Your task to perform on an android device: delete a single message in the gmail app Image 0: 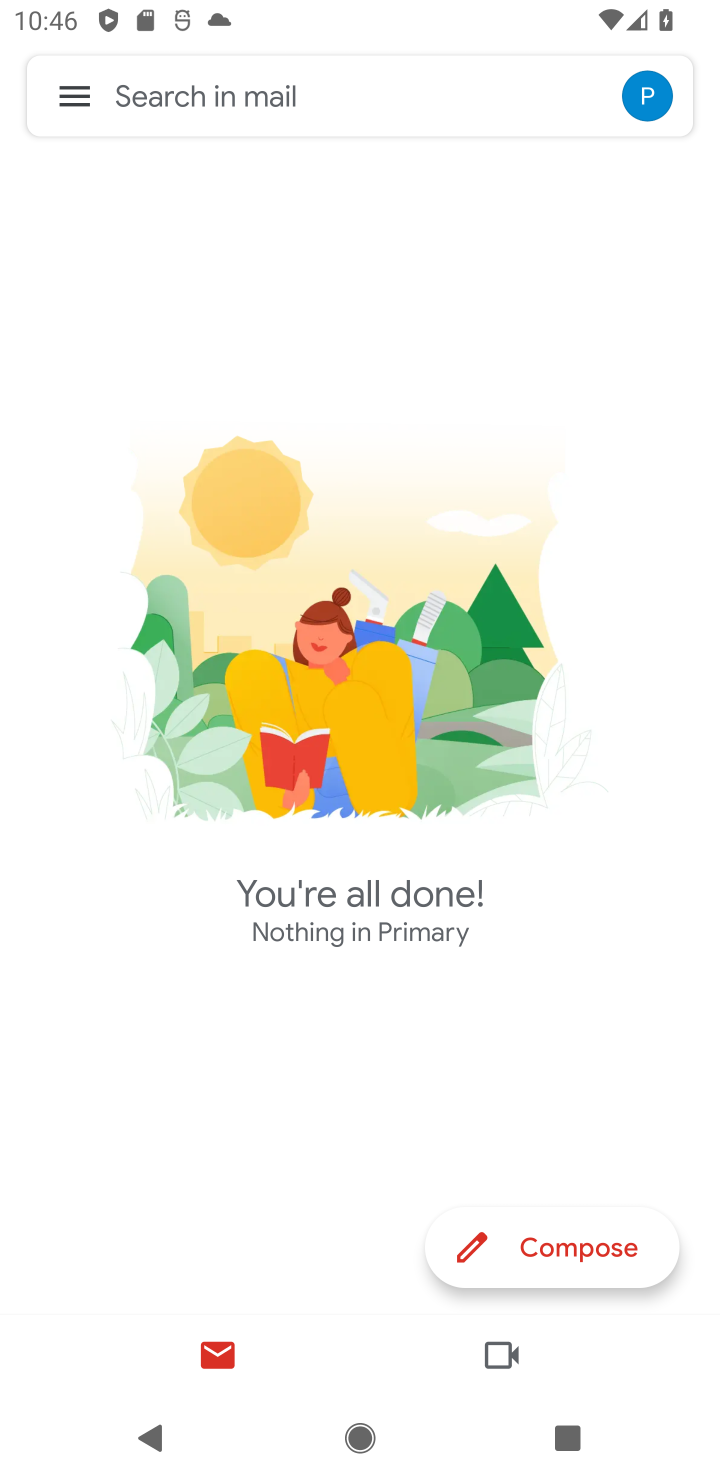
Step 0: press home button
Your task to perform on an android device: delete a single message in the gmail app Image 1: 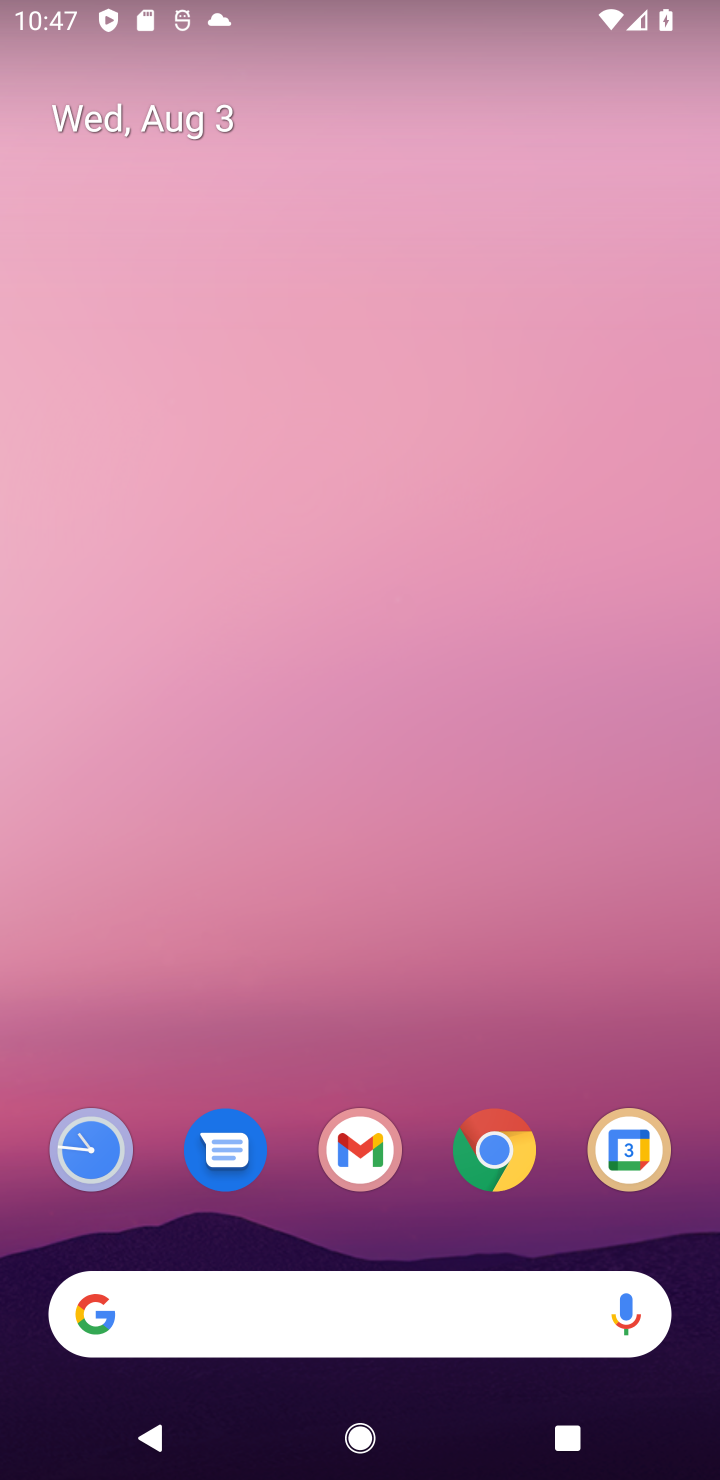
Step 1: drag from (511, 998) to (561, 361)
Your task to perform on an android device: delete a single message in the gmail app Image 2: 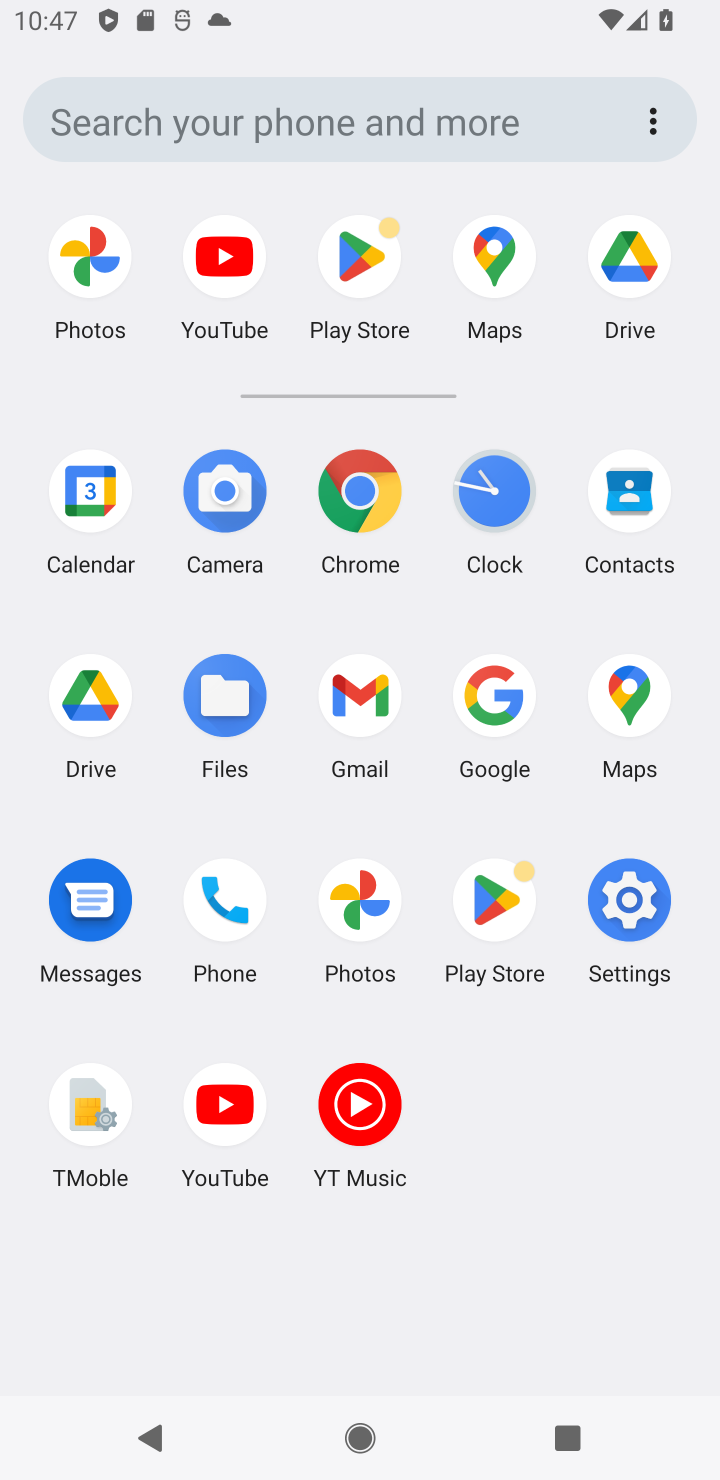
Step 2: click (379, 707)
Your task to perform on an android device: delete a single message in the gmail app Image 3: 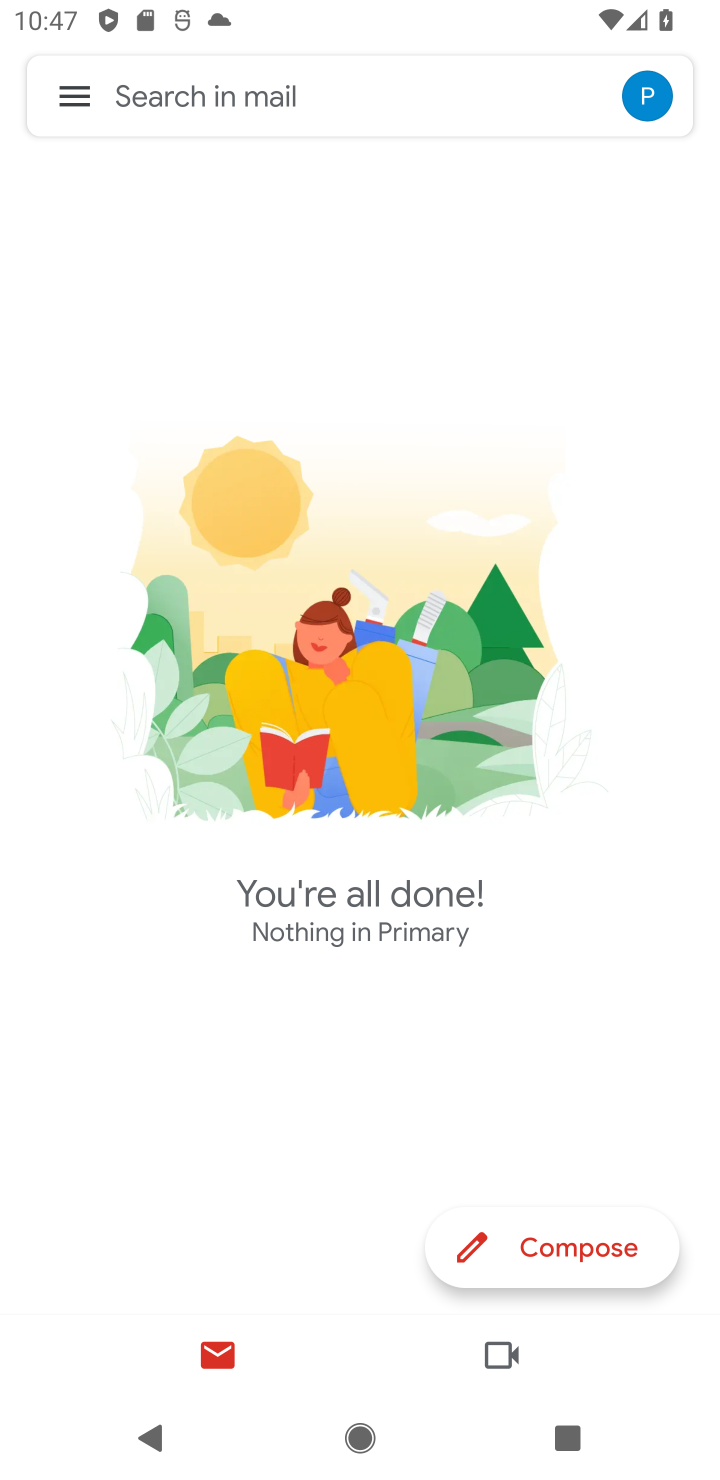
Step 3: click (78, 85)
Your task to perform on an android device: delete a single message in the gmail app Image 4: 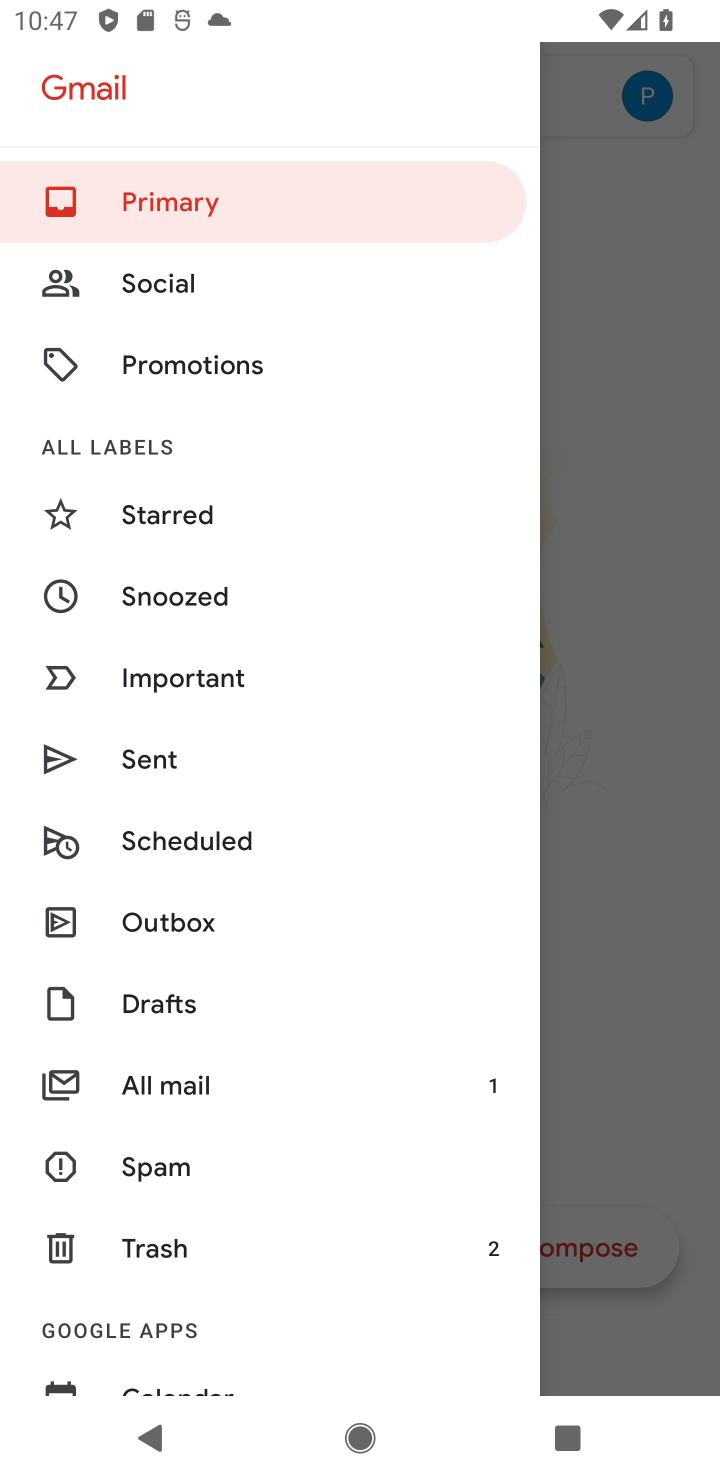
Step 4: click (275, 1086)
Your task to perform on an android device: delete a single message in the gmail app Image 5: 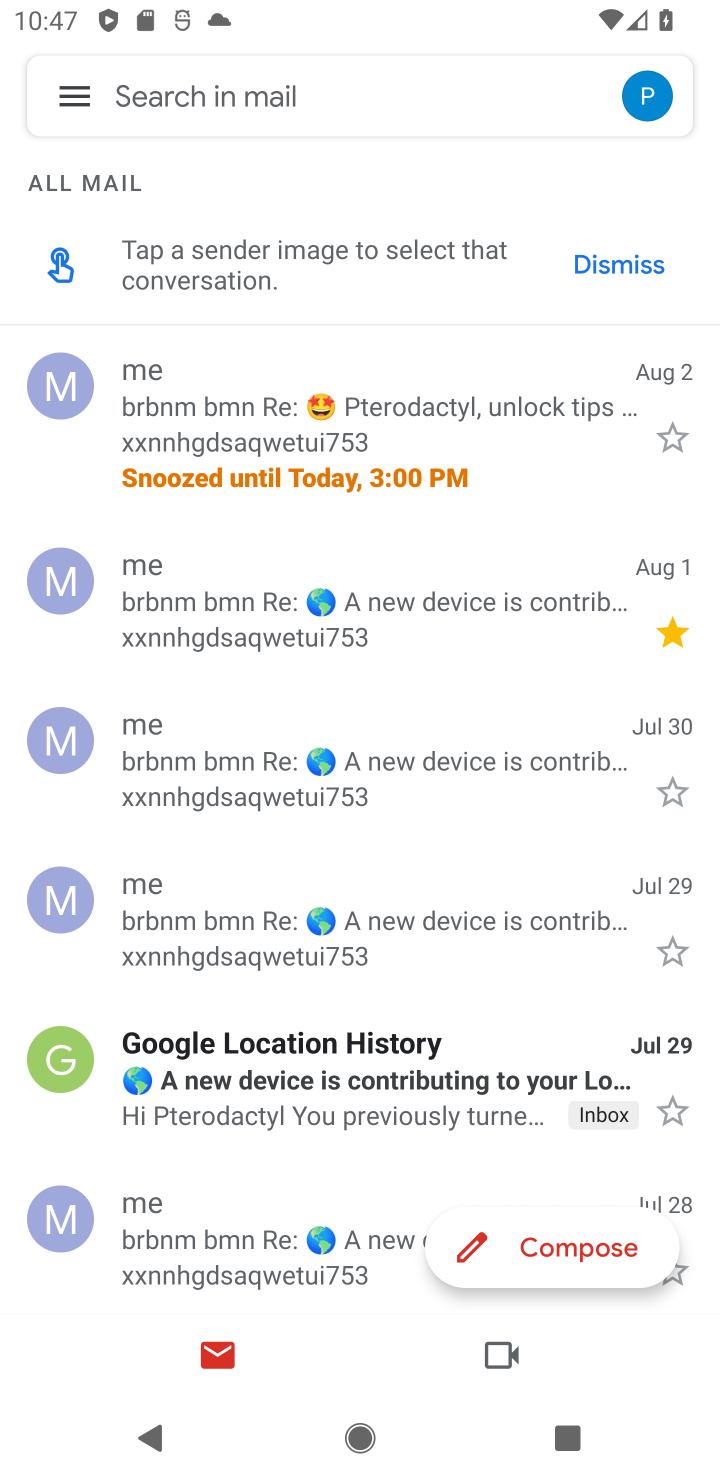
Step 5: click (454, 436)
Your task to perform on an android device: delete a single message in the gmail app Image 6: 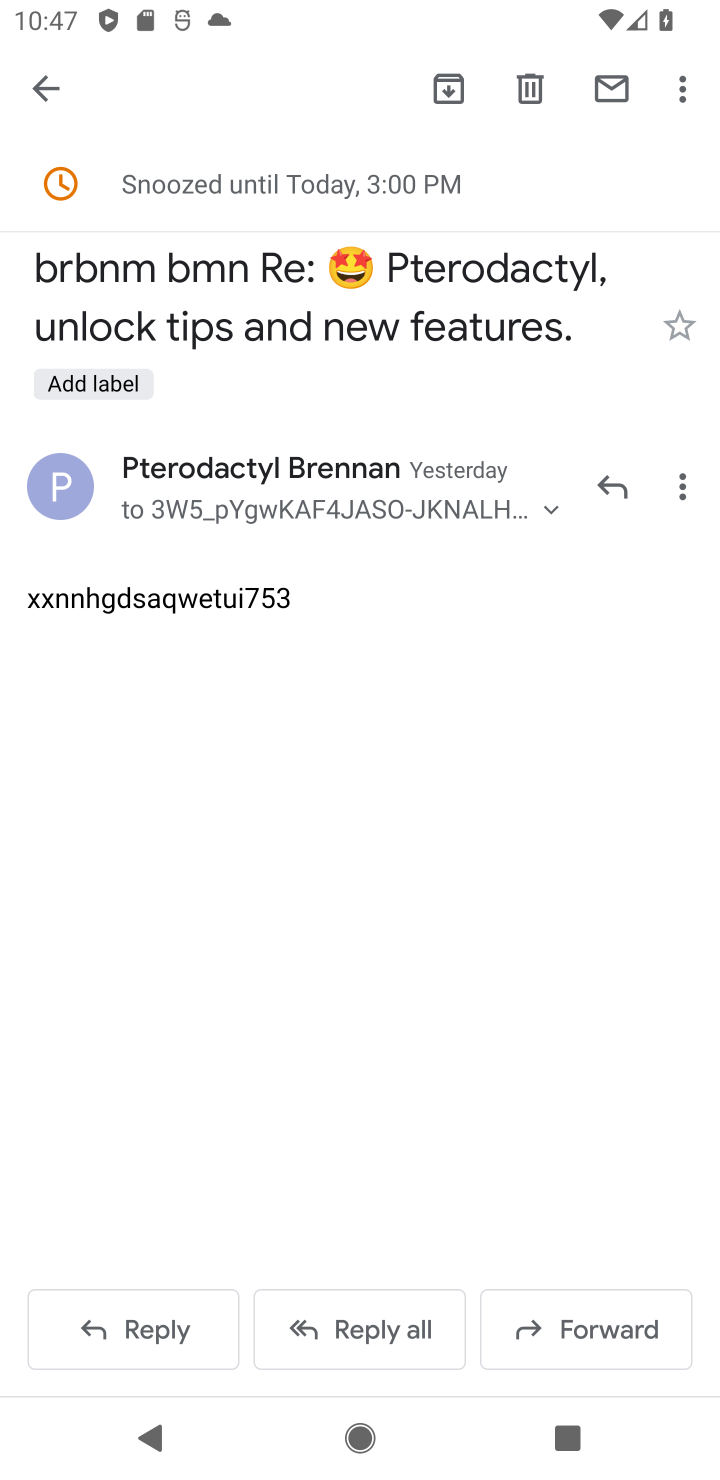
Step 6: click (526, 88)
Your task to perform on an android device: delete a single message in the gmail app Image 7: 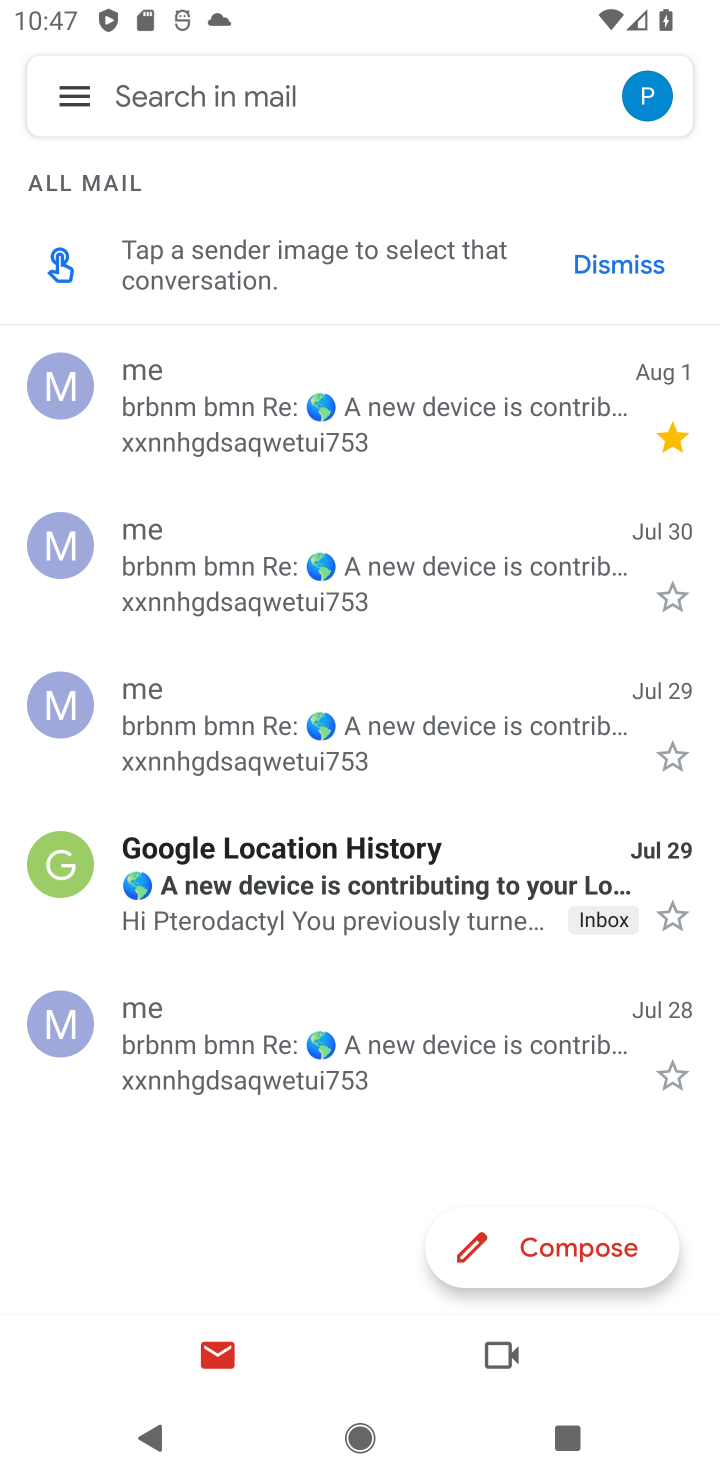
Step 7: task complete